Your task to perform on an android device: Go to Maps Image 0: 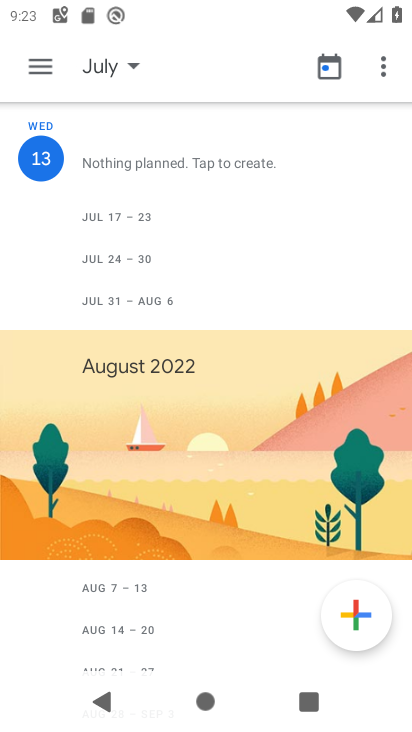
Step 0: press home button
Your task to perform on an android device: Go to Maps Image 1: 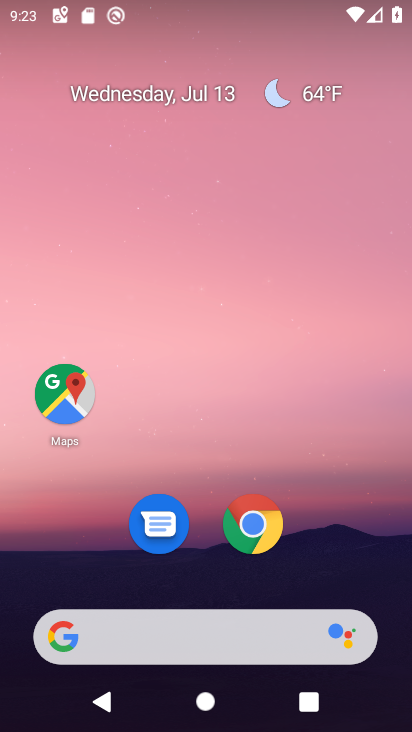
Step 1: drag from (218, 599) to (356, 673)
Your task to perform on an android device: Go to Maps Image 2: 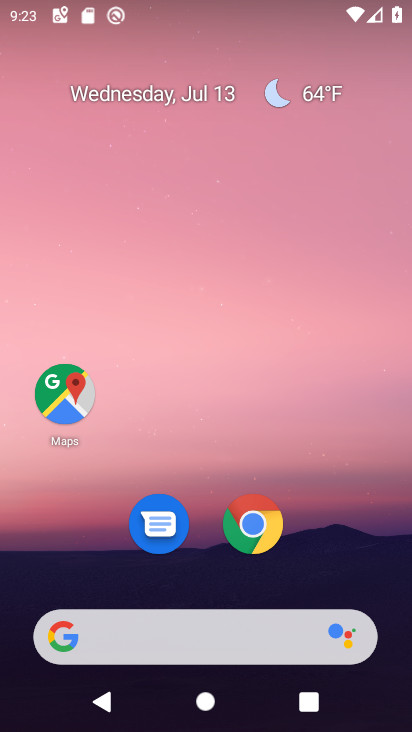
Step 2: click (82, 383)
Your task to perform on an android device: Go to Maps Image 3: 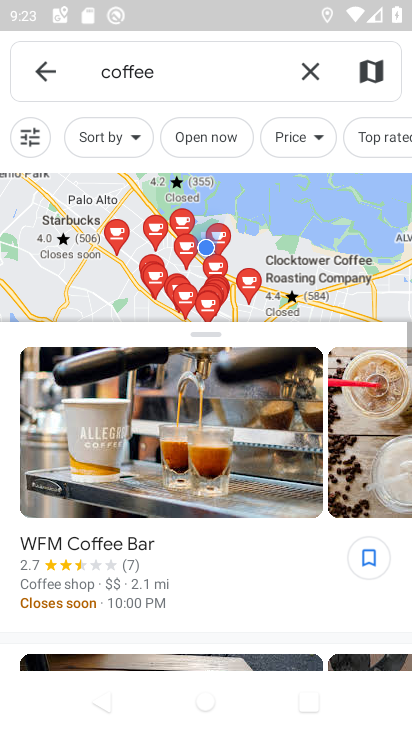
Step 3: click (36, 77)
Your task to perform on an android device: Go to Maps Image 4: 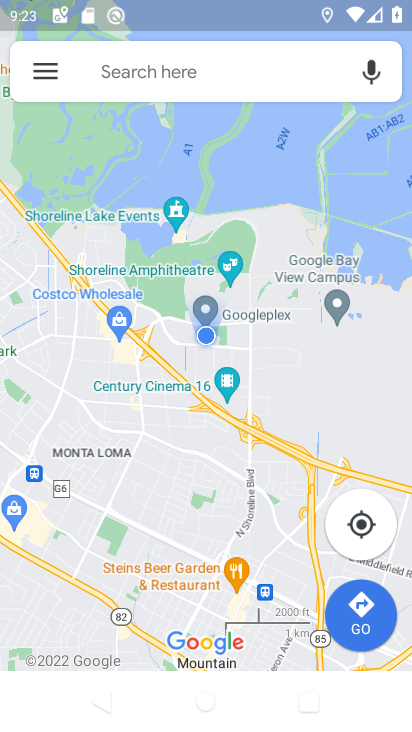
Step 4: task complete